Your task to perform on an android device: change notification settings in the gmail app Image 0: 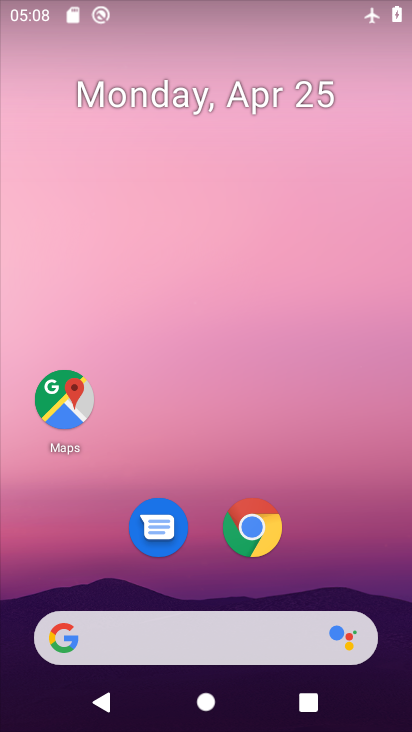
Step 0: drag from (387, 608) to (347, 79)
Your task to perform on an android device: change notification settings in the gmail app Image 1: 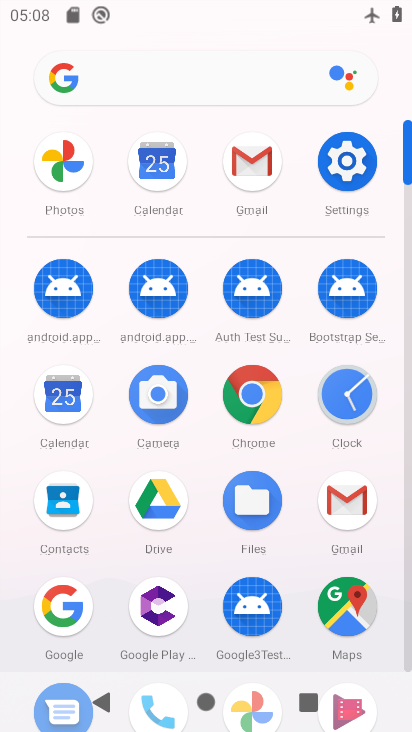
Step 1: click (406, 656)
Your task to perform on an android device: change notification settings in the gmail app Image 2: 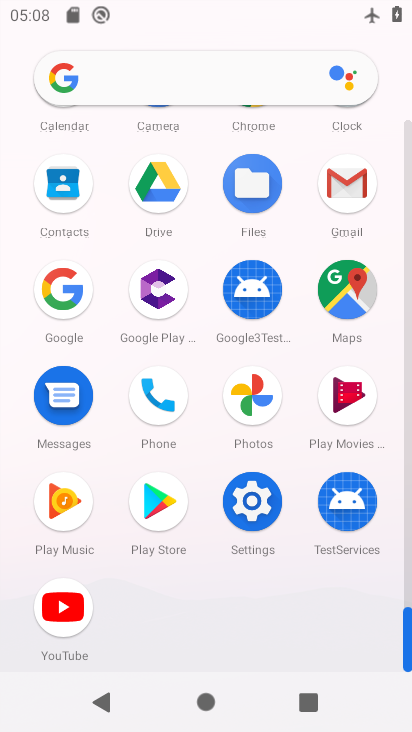
Step 2: click (348, 183)
Your task to perform on an android device: change notification settings in the gmail app Image 3: 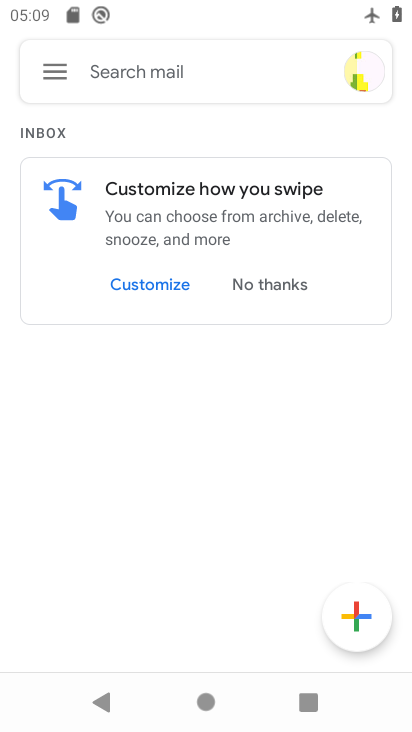
Step 3: click (56, 75)
Your task to perform on an android device: change notification settings in the gmail app Image 4: 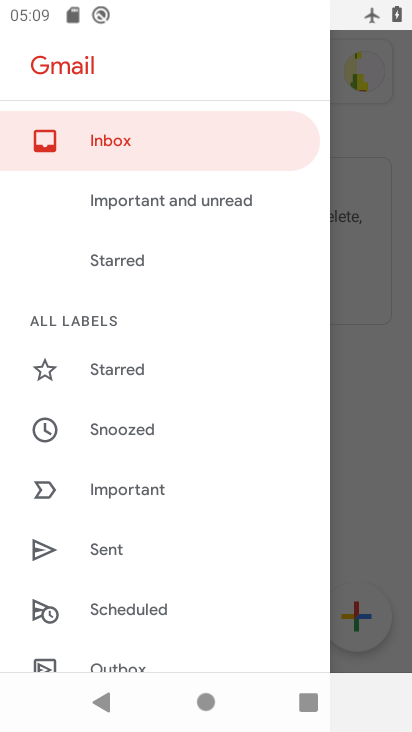
Step 4: drag from (209, 591) to (246, 99)
Your task to perform on an android device: change notification settings in the gmail app Image 5: 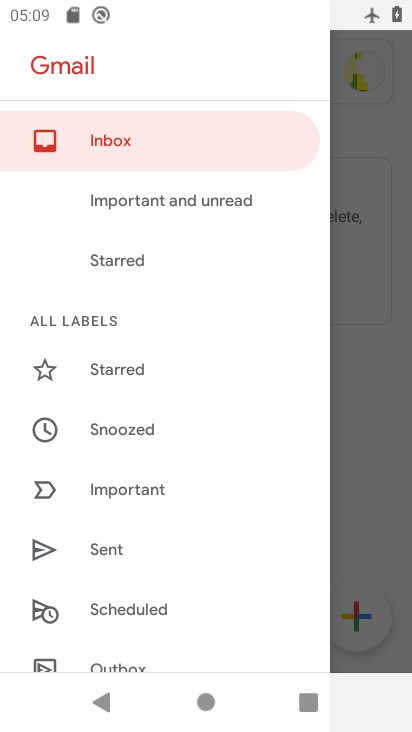
Step 5: drag from (208, 616) to (233, 159)
Your task to perform on an android device: change notification settings in the gmail app Image 6: 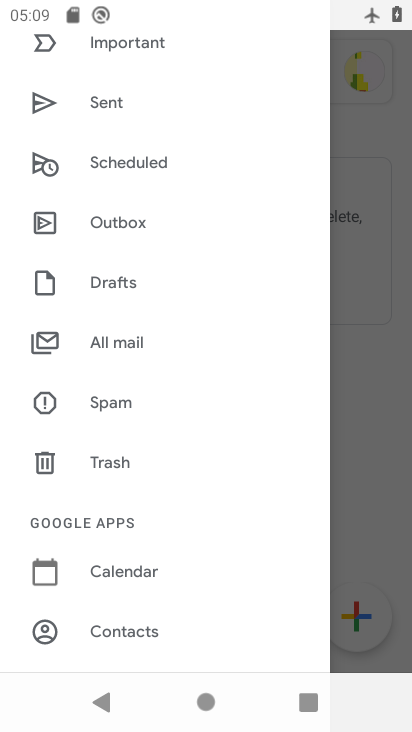
Step 6: drag from (178, 613) to (210, 74)
Your task to perform on an android device: change notification settings in the gmail app Image 7: 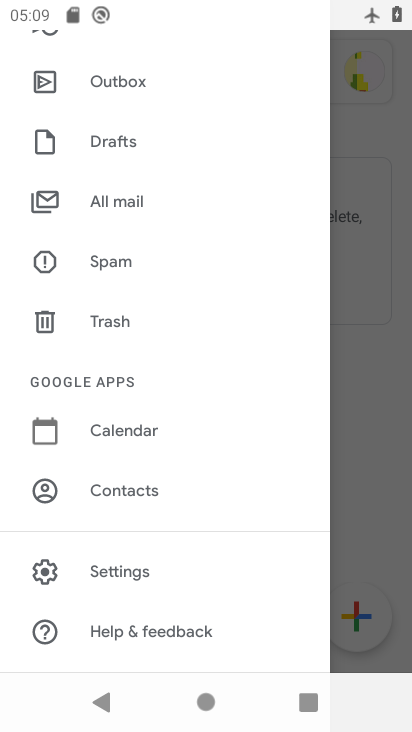
Step 7: click (102, 566)
Your task to perform on an android device: change notification settings in the gmail app Image 8: 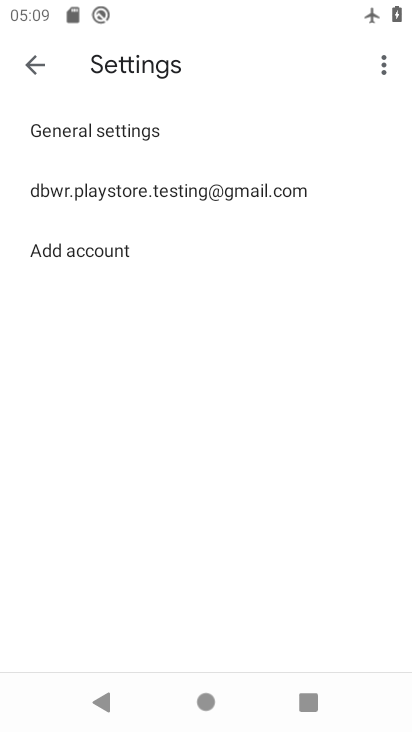
Step 8: click (148, 181)
Your task to perform on an android device: change notification settings in the gmail app Image 9: 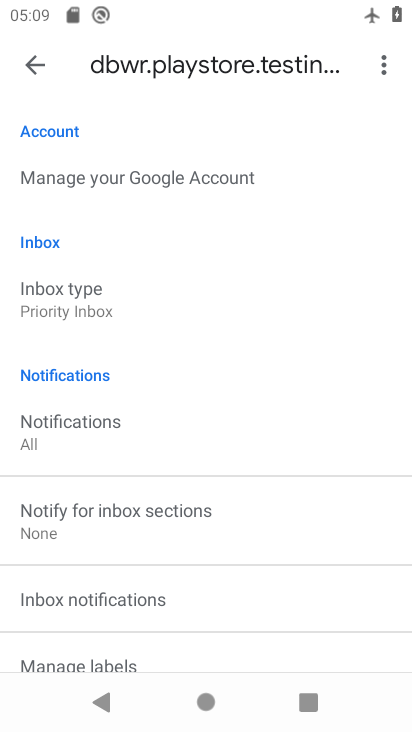
Step 9: drag from (218, 562) to (235, 184)
Your task to perform on an android device: change notification settings in the gmail app Image 10: 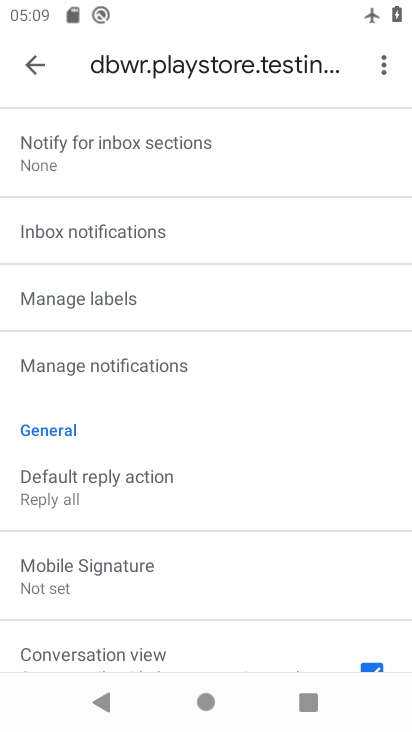
Step 10: click (130, 363)
Your task to perform on an android device: change notification settings in the gmail app Image 11: 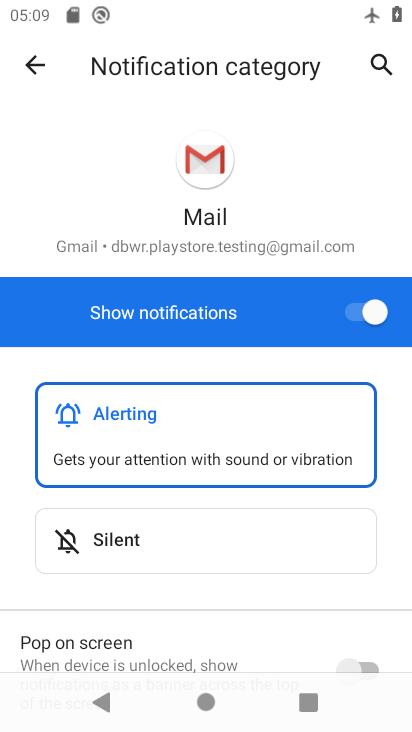
Step 11: drag from (263, 443) to (256, 119)
Your task to perform on an android device: change notification settings in the gmail app Image 12: 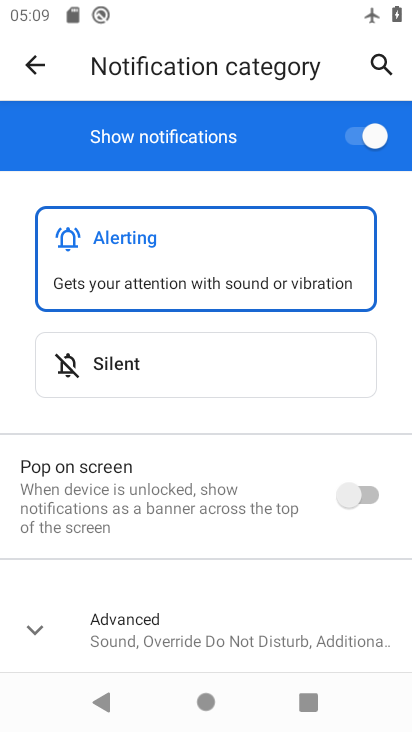
Step 12: click (22, 622)
Your task to perform on an android device: change notification settings in the gmail app Image 13: 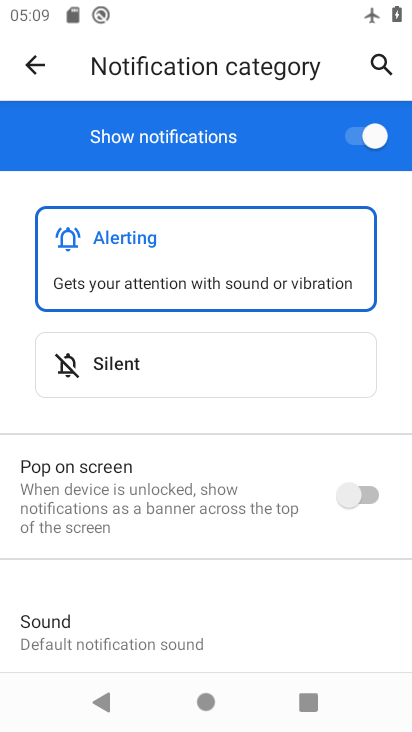
Step 13: drag from (292, 655) to (284, 228)
Your task to perform on an android device: change notification settings in the gmail app Image 14: 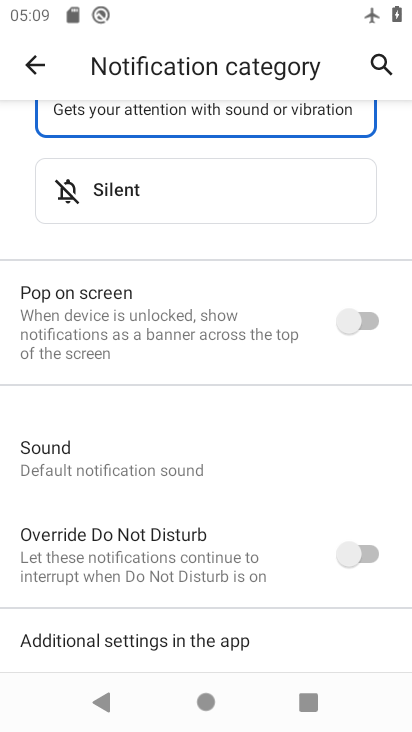
Step 14: click (359, 549)
Your task to perform on an android device: change notification settings in the gmail app Image 15: 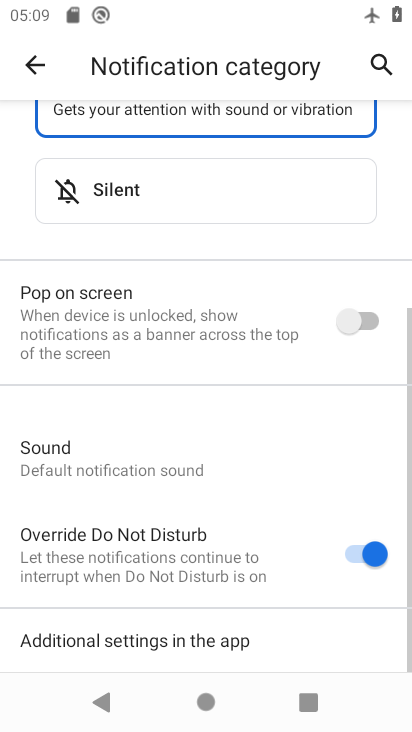
Step 15: click (366, 317)
Your task to perform on an android device: change notification settings in the gmail app Image 16: 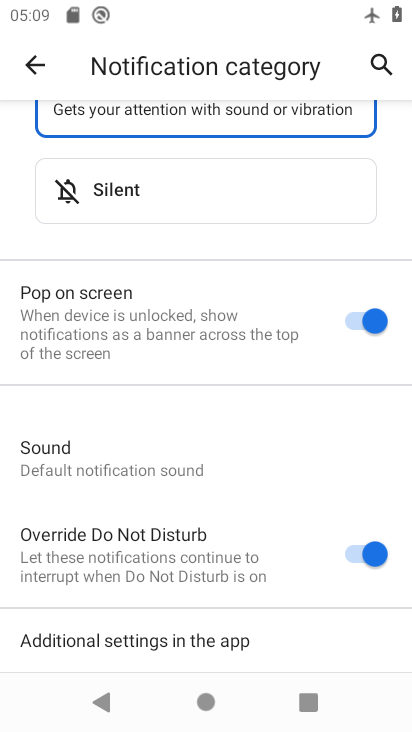
Step 16: task complete